Your task to perform on an android device: open chrome and create a bookmark for the current page Image 0: 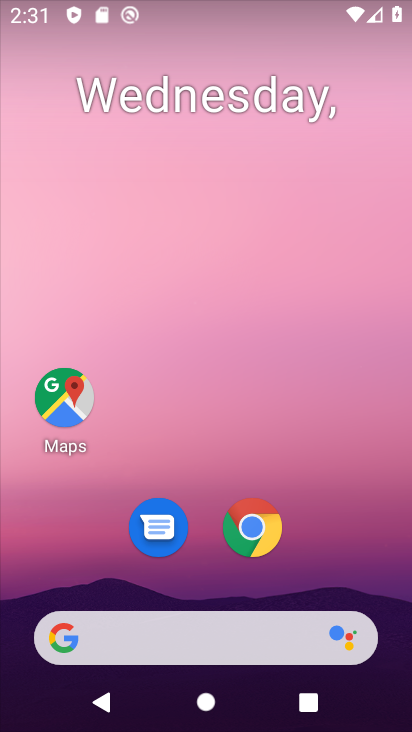
Step 0: click (270, 541)
Your task to perform on an android device: open chrome and create a bookmark for the current page Image 1: 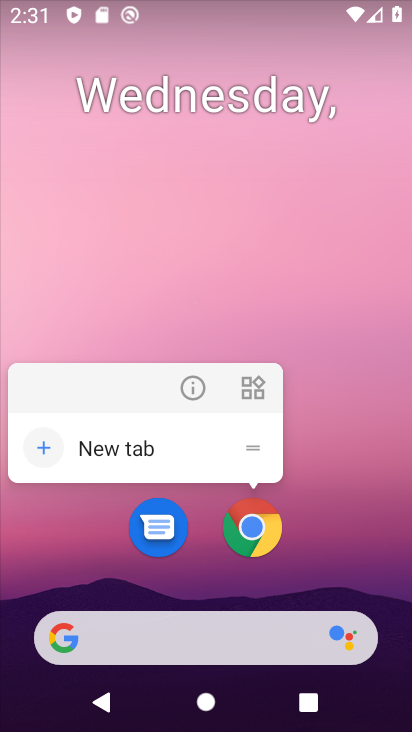
Step 1: click (244, 224)
Your task to perform on an android device: open chrome and create a bookmark for the current page Image 2: 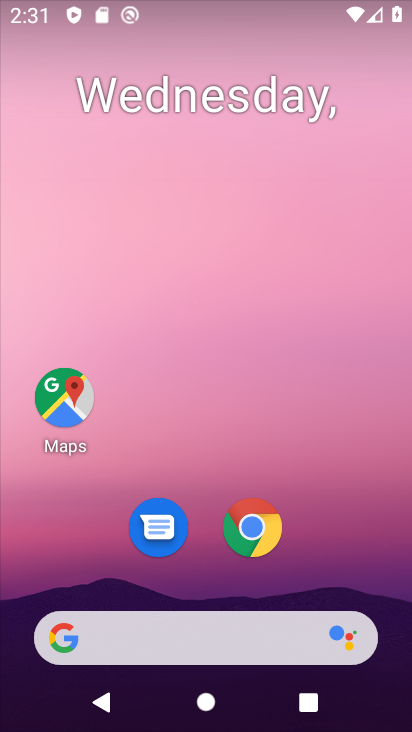
Step 2: click (247, 524)
Your task to perform on an android device: open chrome and create a bookmark for the current page Image 3: 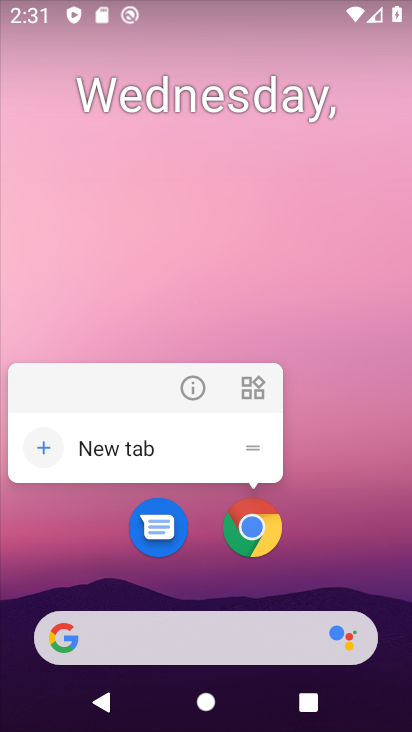
Step 3: click (247, 524)
Your task to perform on an android device: open chrome and create a bookmark for the current page Image 4: 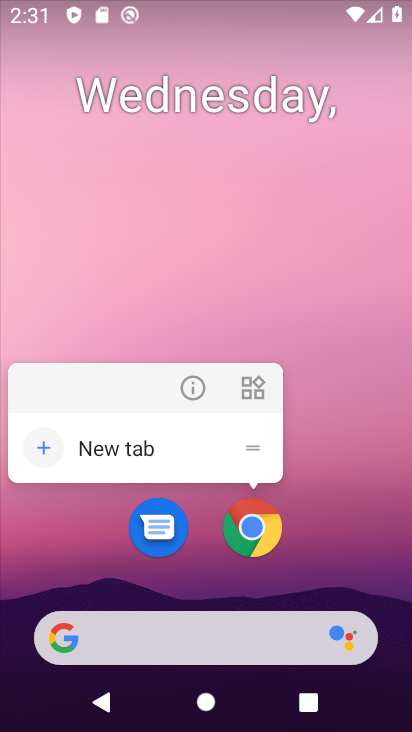
Step 4: click (247, 524)
Your task to perform on an android device: open chrome and create a bookmark for the current page Image 5: 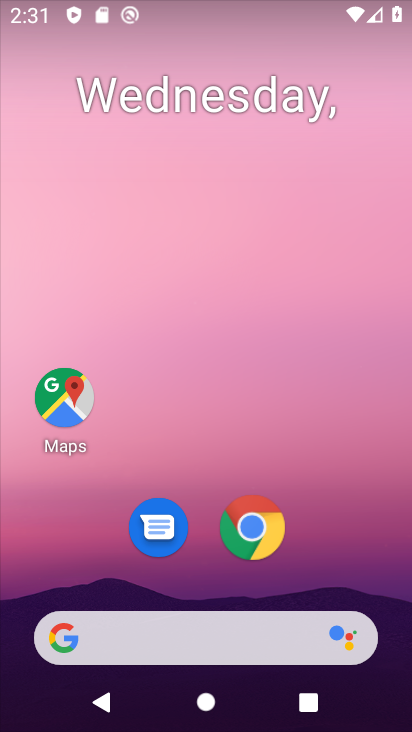
Step 5: click (247, 524)
Your task to perform on an android device: open chrome and create a bookmark for the current page Image 6: 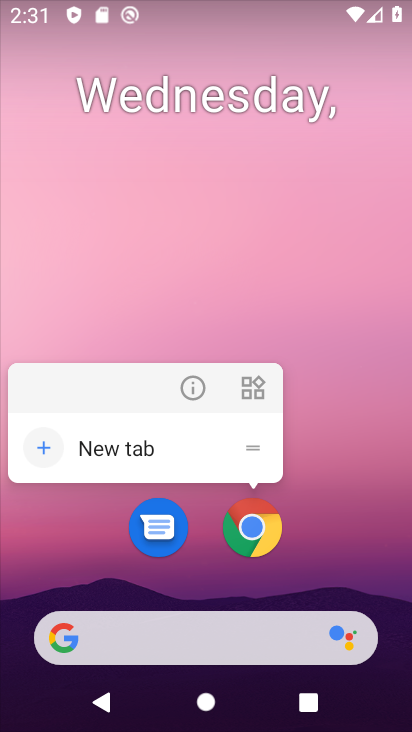
Step 6: click (247, 524)
Your task to perform on an android device: open chrome and create a bookmark for the current page Image 7: 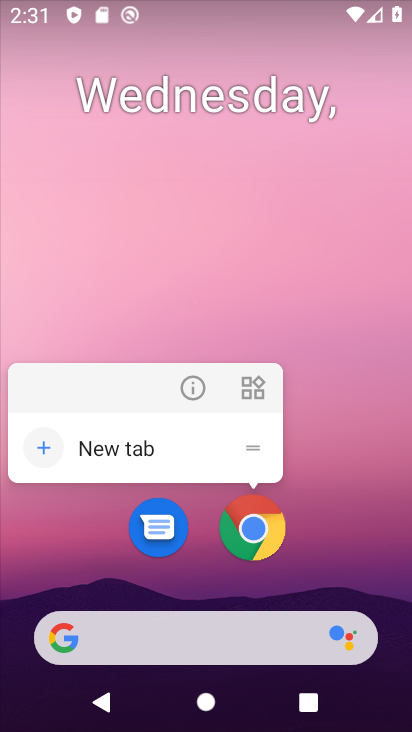
Step 7: click (247, 524)
Your task to perform on an android device: open chrome and create a bookmark for the current page Image 8: 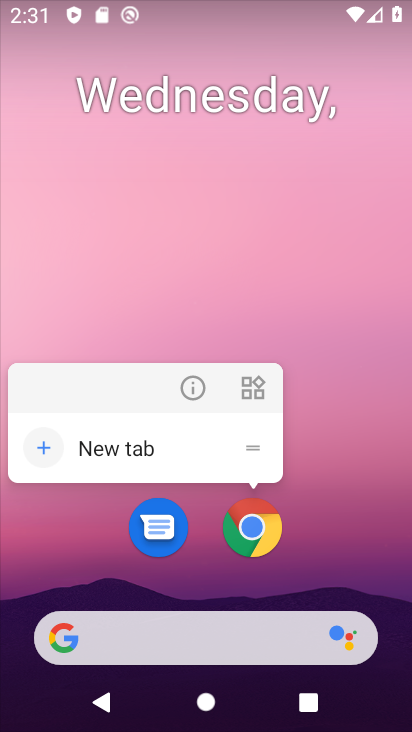
Step 8: click (247, 524)
Your task to perform on an android device: open chrome and create a bookmark for the current page Image 9: 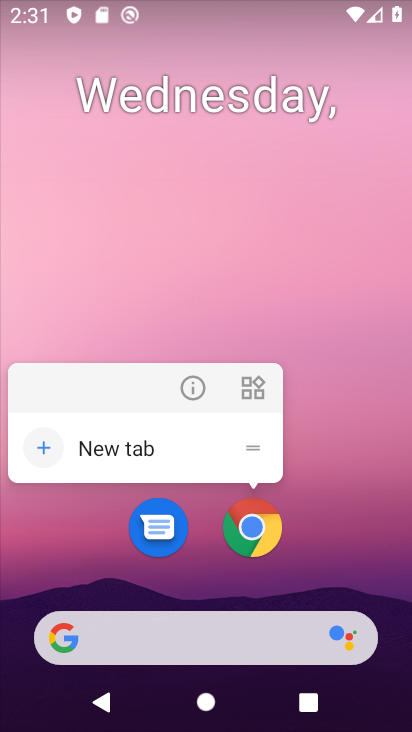
Step 9: click (402, 415)
Your task to perform on an android device: open chrome and create a bookmark for the current page Image 10: 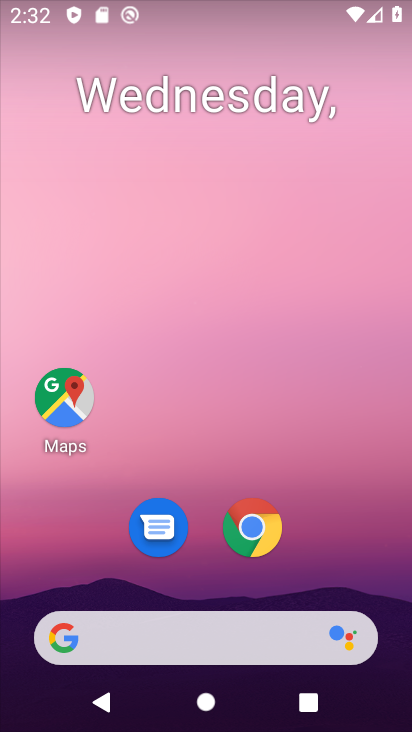
Step 10: click (321, 290)
Your task to perform on an android device: open chrome and create a bookmark for the current page Image 11: 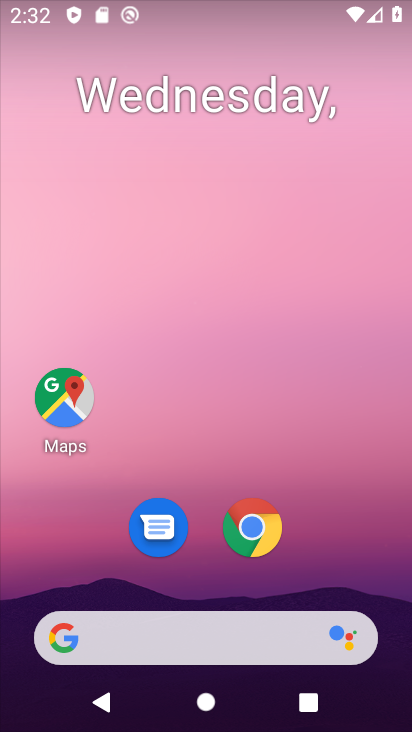
Step 11: click (257, 519)
Your task to perform on an android device: open chrome and create a bookmark for the current page Image 12: 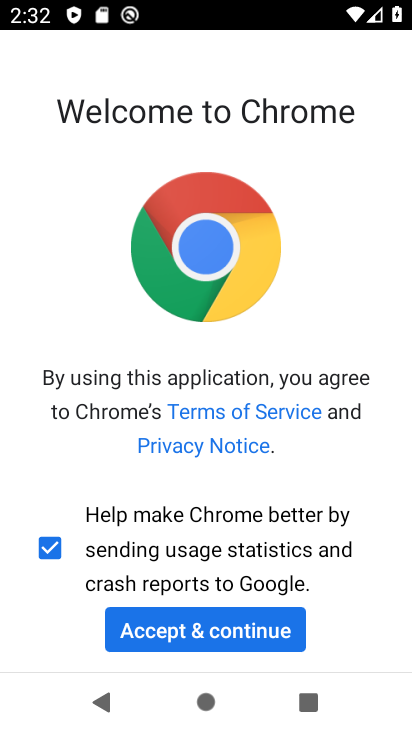
Step 12: click (214, 632)
Your task to perform on an android device: open chrome and create a bookmark for the current page Image 13: 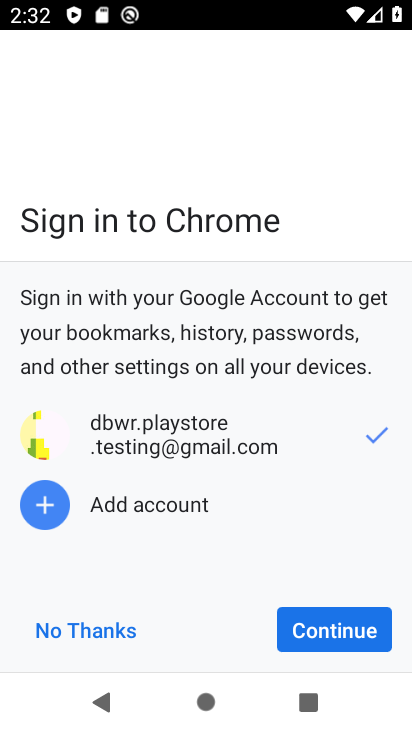
Step 13: click (214, 632)
Your task to perform on an android device: open chrome and create a bookmark for the current page Image 14: 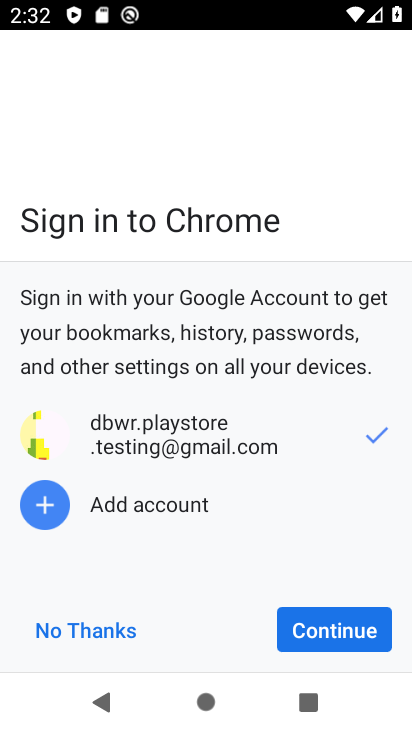
Step 14: click (214, 632)
Your task to perform on an android device: open chrome and create a bookmark for the current page Image 15: 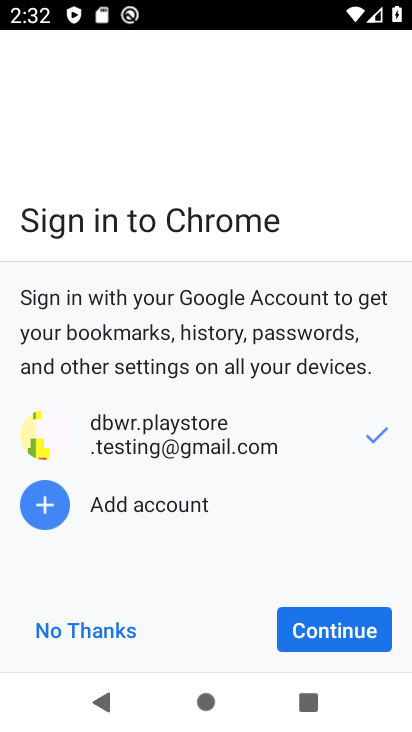
Step 15: click (355, 619)
Your task to perform on an android device: open chrome and create a bookmark for the current page Image 16: 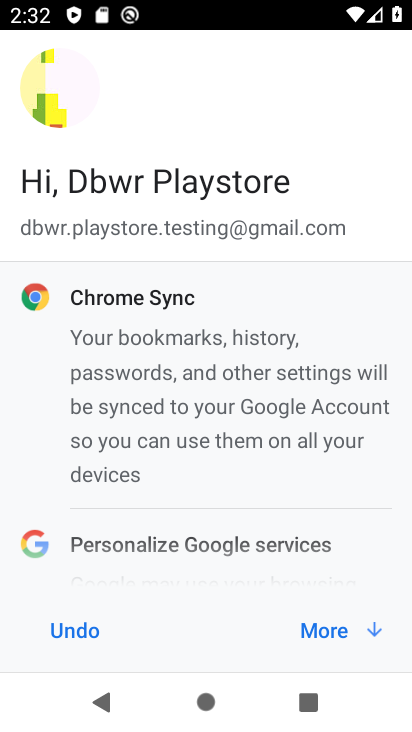
Step 16: click (355, 619)
Your task to perform on an android device: open chrome and create a bookmark for the current page Image 17: 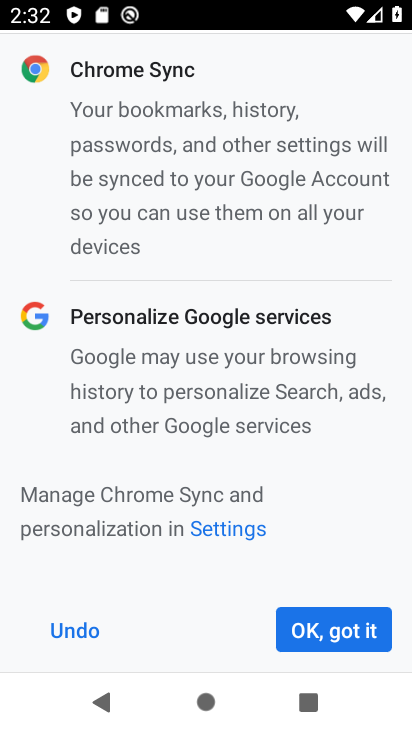
Step 17: click (355, 619)
Your task to perform on an android device: open chrome and create a bookmark for the current page Image 18: 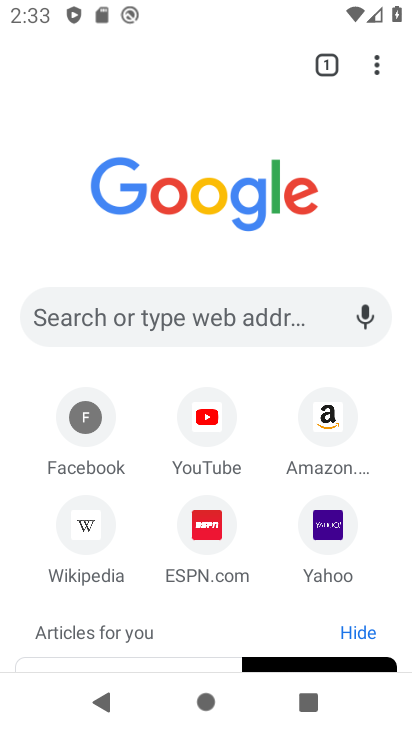
Step 18: click (373, 63)
Your task to perform on an android device: open chrome and create a bookmark for the current page Image 19: 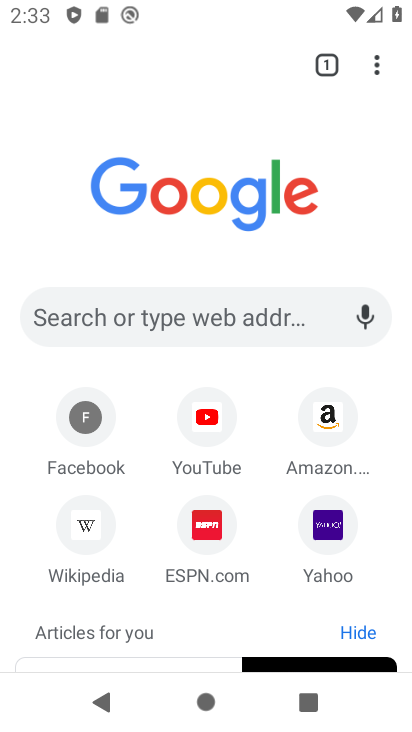
Step 19: drag from (373, 63) to (232, 386)
Your task to perform on an android device: open chrome and create a bookmark for the current page Image 20: 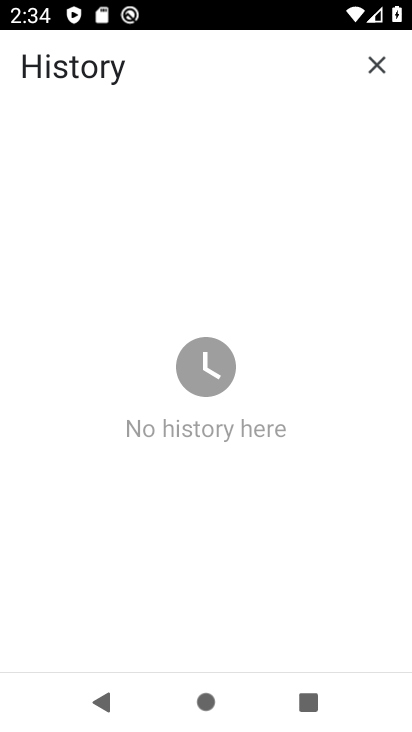
Step 20: click (373, 67)
Your task to perform on an android device: open chrome and create a bookmark for the current page Image 21: 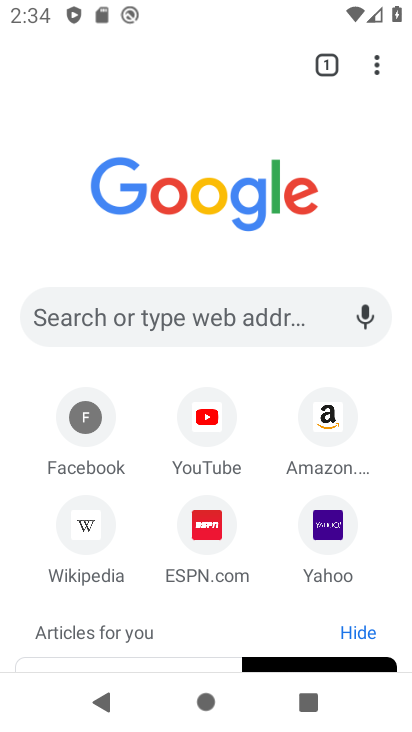
Step 21: task complete